Your task to perform on an android device: uninstall "Google Home" Image 0: 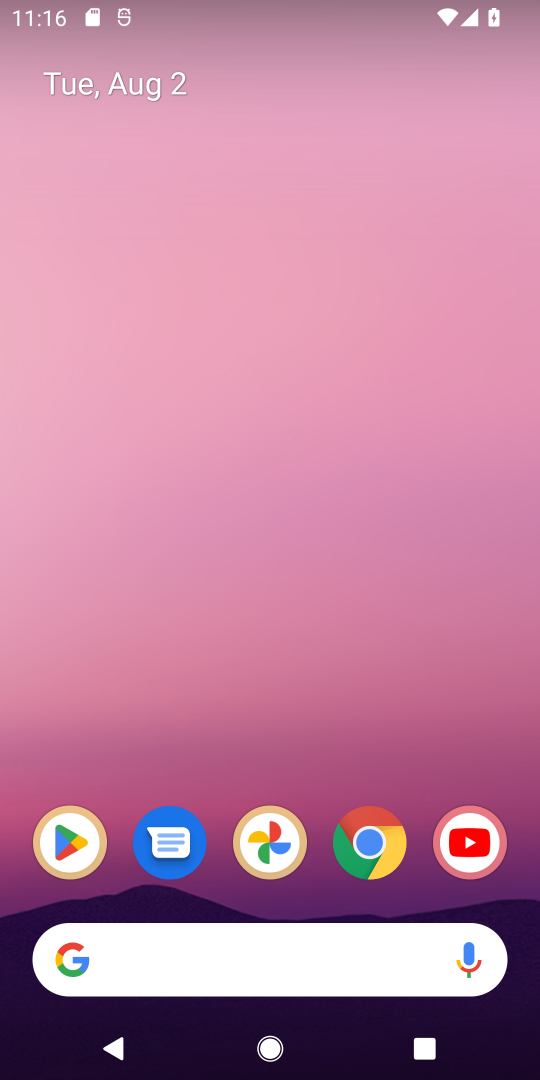
Step 0: press home button
Your task to perform on an android device: uninstall "Google Home" Image 1: 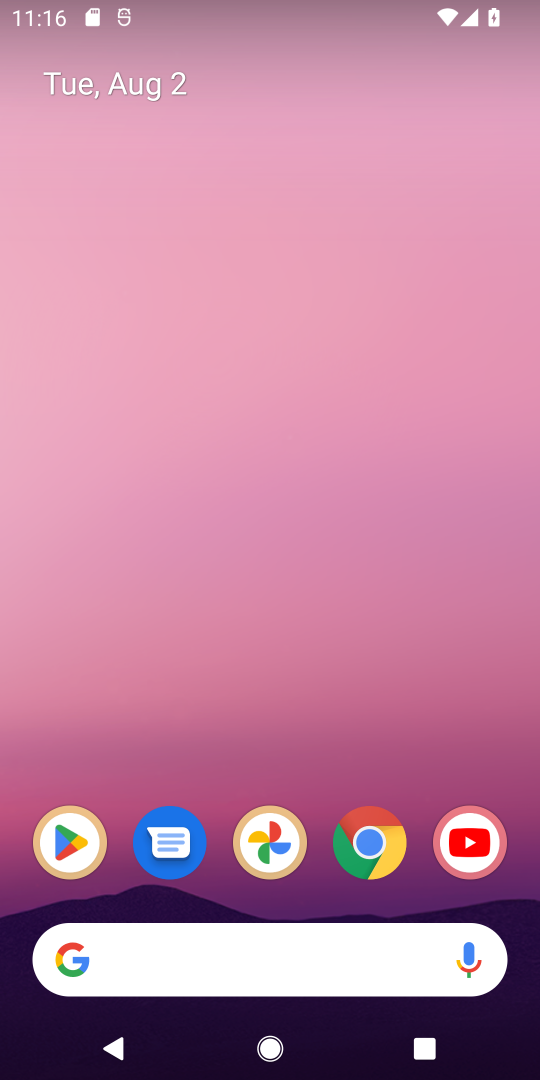
Step 1: click (223, 774)
Your task to perform on an android device: uninstall "Google Home" Image 2: 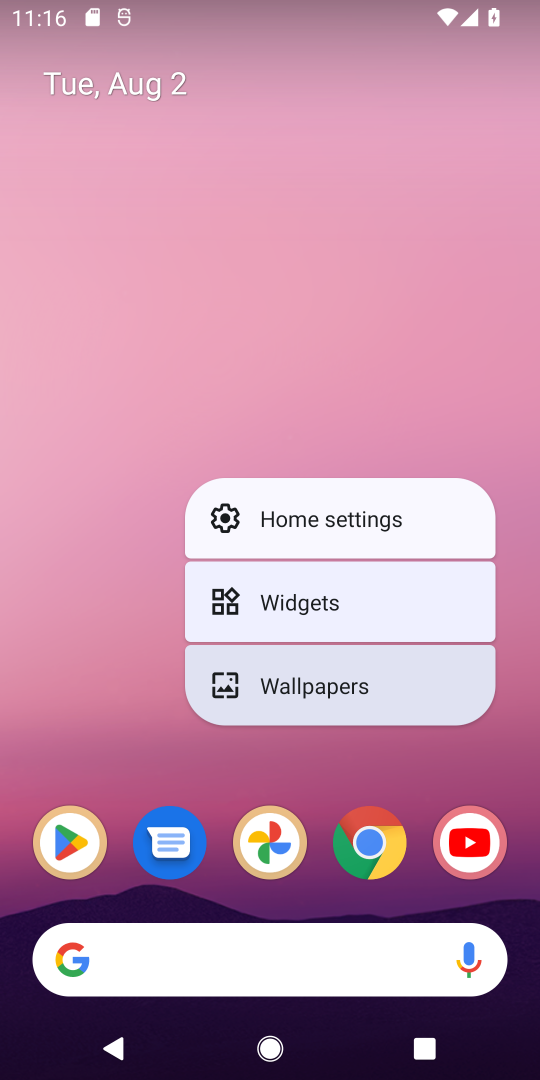
Step 2: click (77, 845)
Your task to perform on an android device: uninstall "Google Home" Image 3: 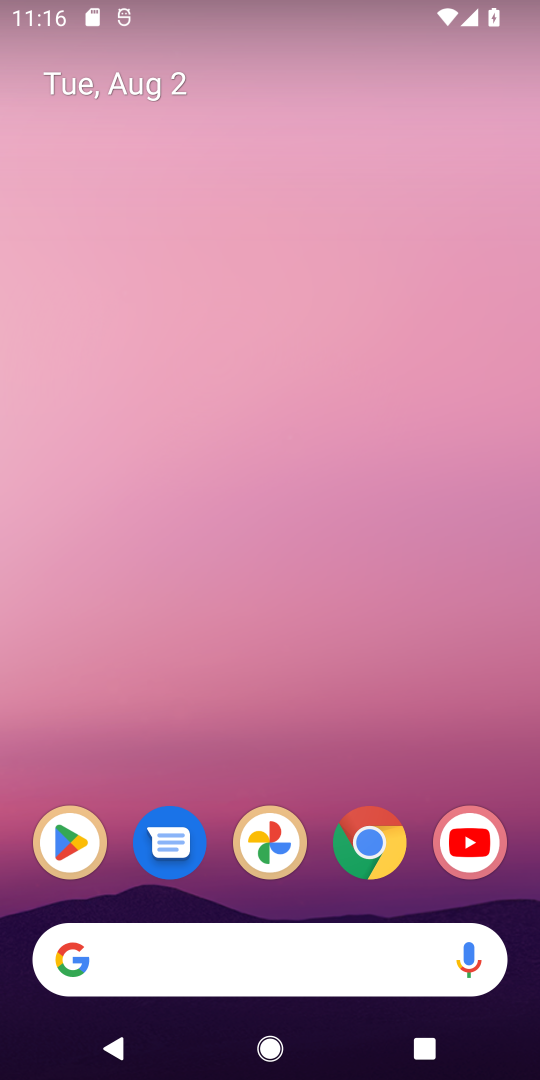
Step 3: click (63, 873)
Your task to perform on an android device: uninstall "Google Home" Image 4: 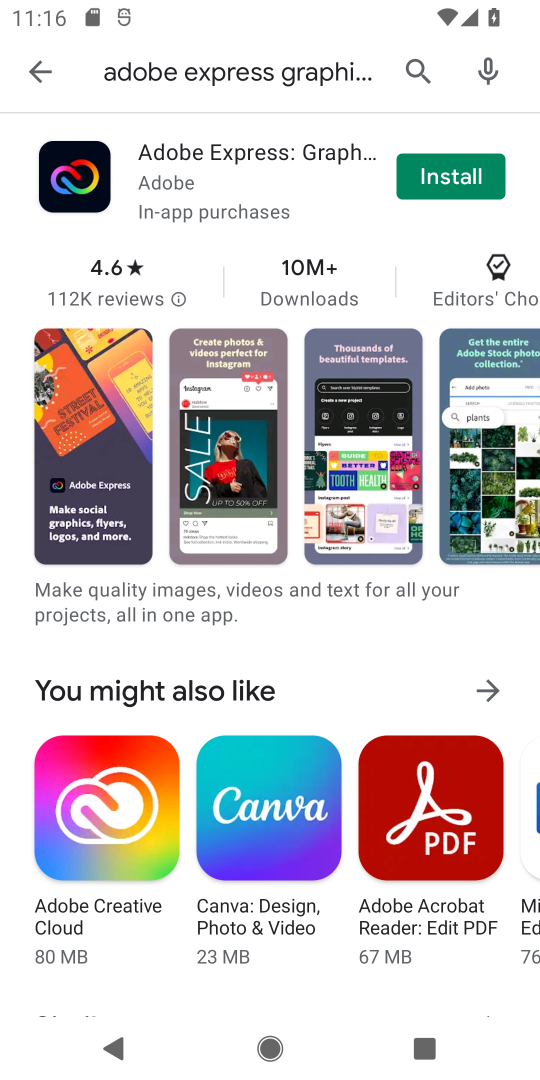
Step 4: click (410, 61)
Your task to perform on an android device: uninstall "Google Home" Image 5: 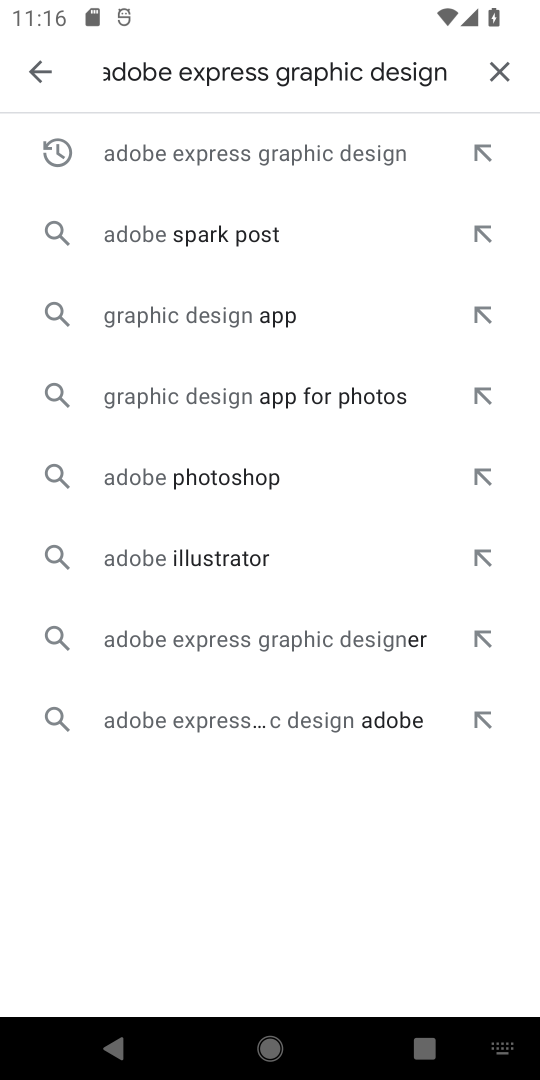
Step 5: click (495, 69)
Your task to perform on an android device: uninstall "Google Home" Image 6: 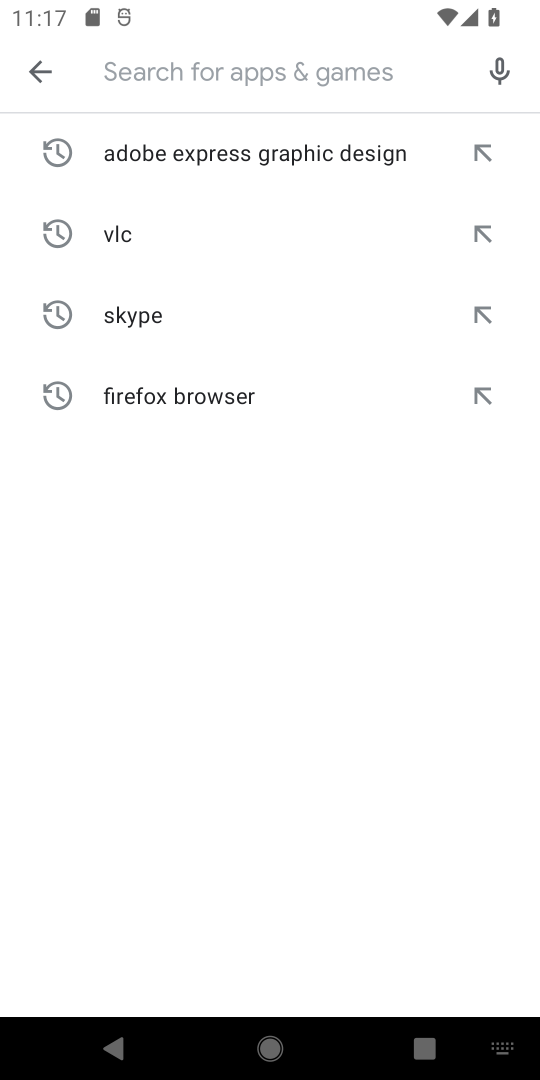
Step 6: type "Google Home""
Your task to perform on an android device: uninstall "Google Home" Image 7: 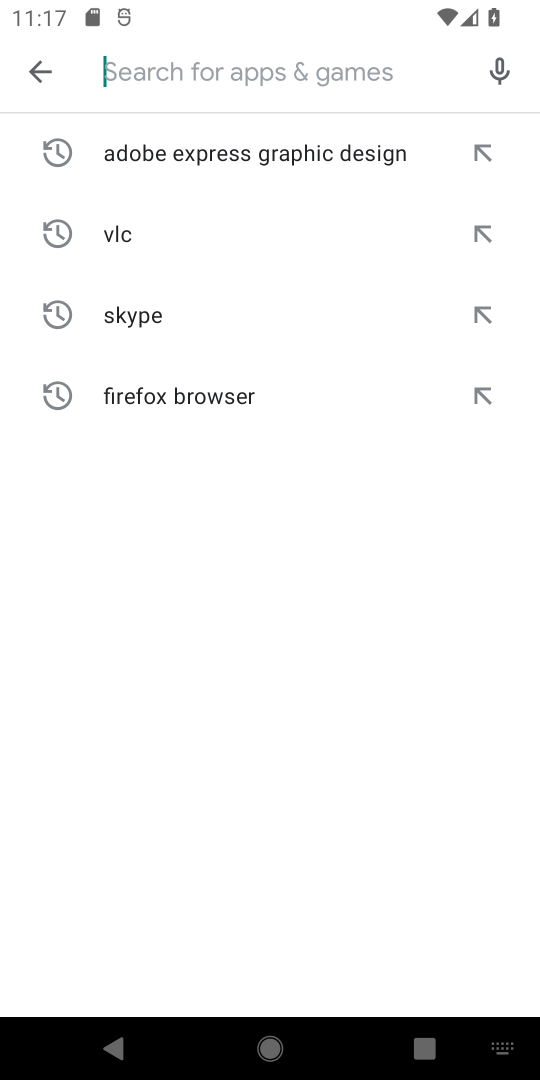
Step 7: type "google home"
Your task to perform on an android device: uninstall "Google Home" Image 8: 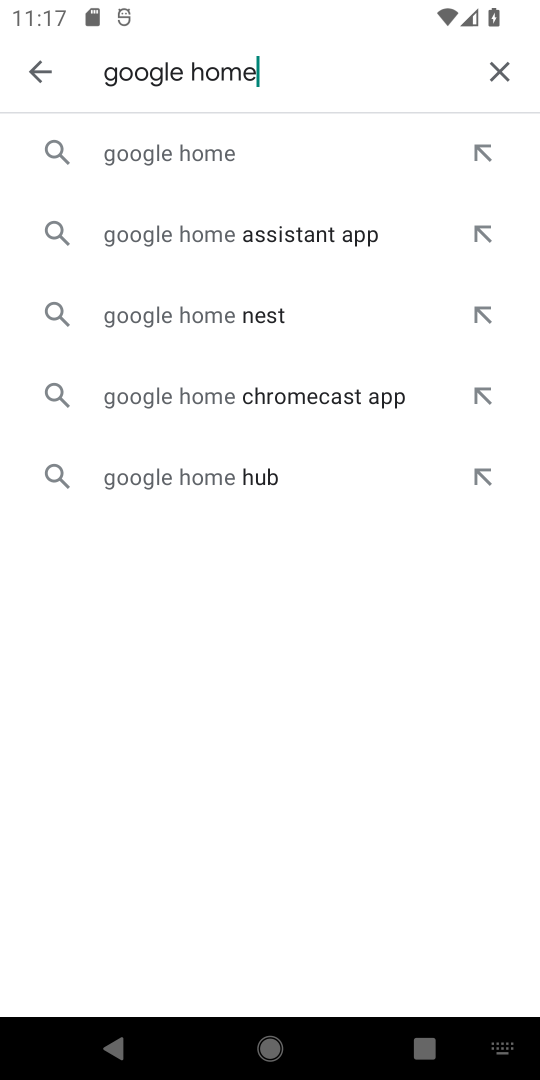
Step 8: click (79, 151)
Your task to perform on an android device: uninstall "Google Home" Image 9: 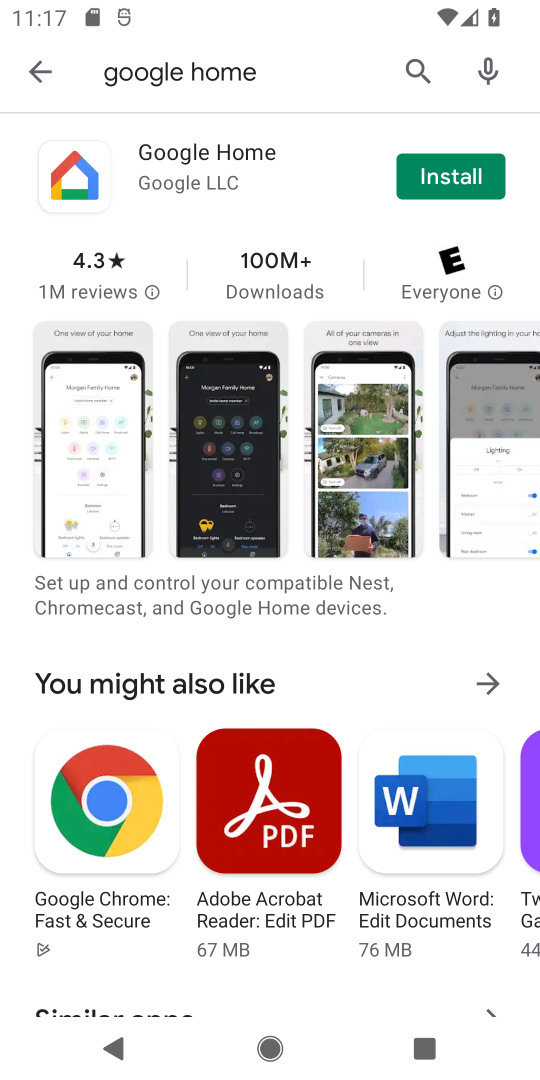
Step 9: task complete